Your task to perform on an android device: Do I have any events today? Image 0: 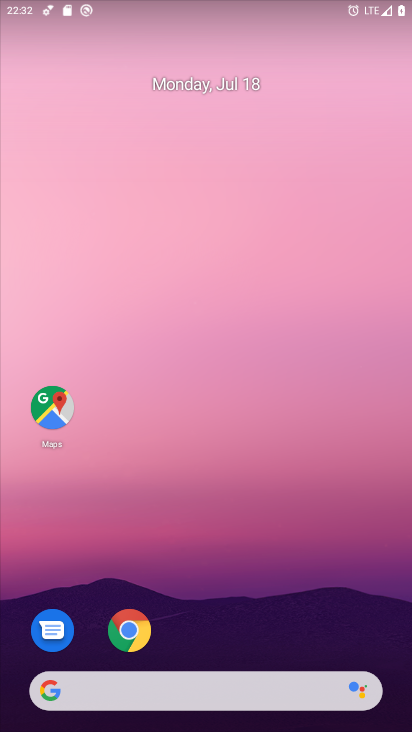
Step 0: drag from (199, 577) to (286, 292)
Your task to perform on an android device: Do I have any events today? Image 1: 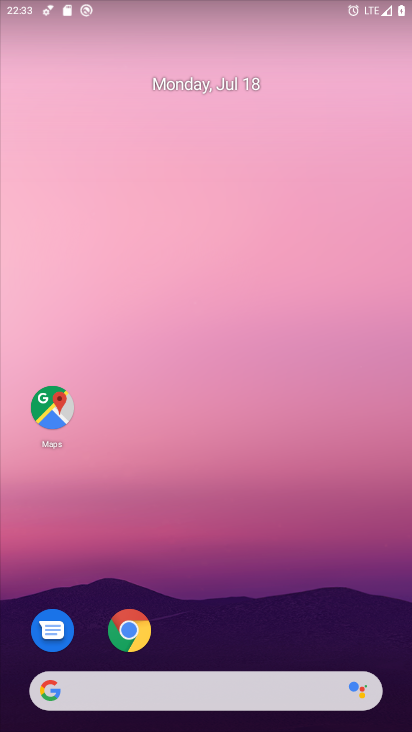
Step 1: drag from (248, 622) to (265, 218)
Your task to perform on an android device: Do I have any events today? Image 2: 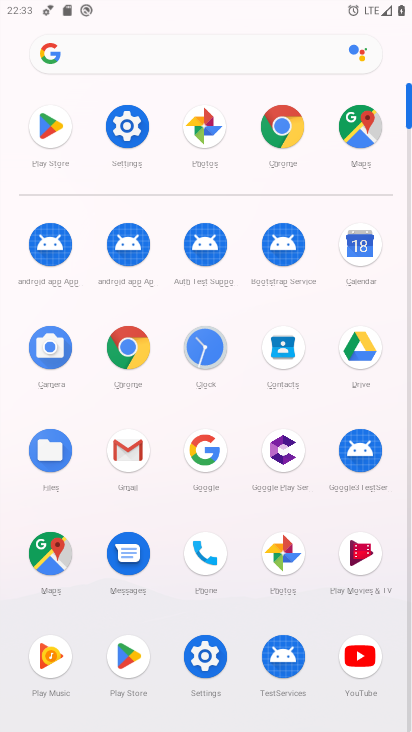
Step 2: click (367, 243)
Your task to perform on an android device: Do I have any events today? Image 3: 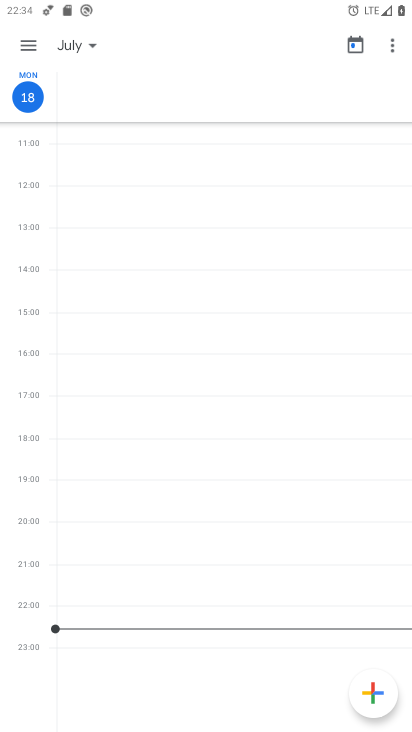
Step 3: click (36, 51)
Your task to perform on an android device: Do I have any events today? Image 4: 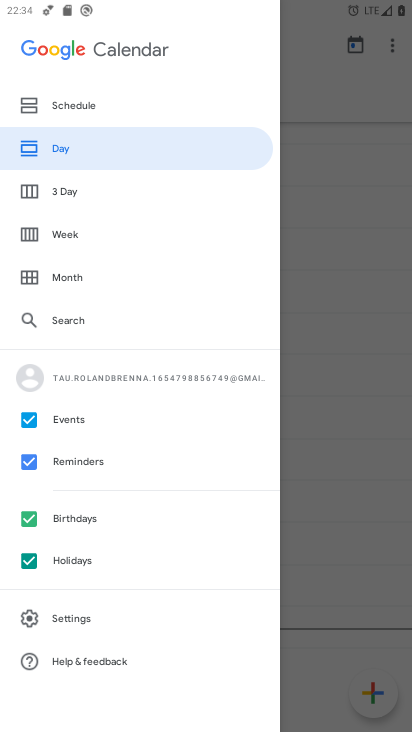
Step 4: click (81, 280)
Your task to perform on an android device: Do I have any events today? Image 5: 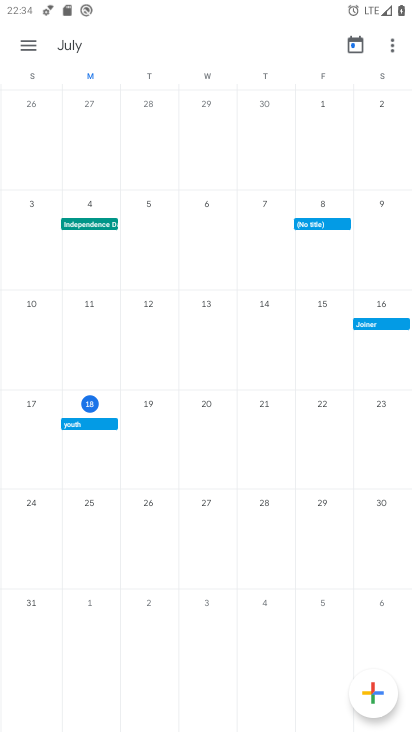
Step 5: click (148, 432)
Your task to perform on an android device: Do I have any events today? Image 6: 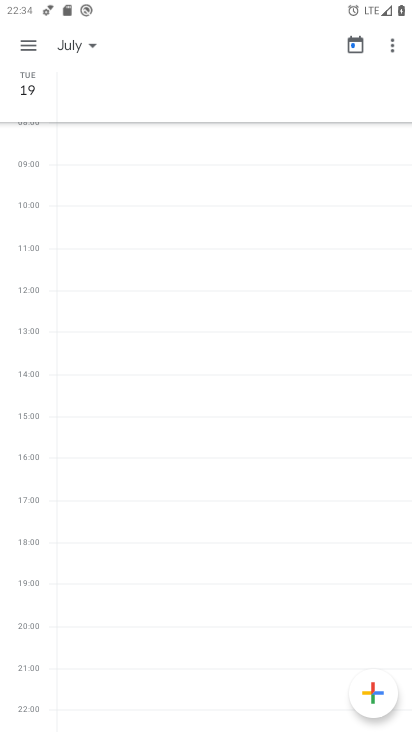
Step 6: task complete